Your task to perform on an android device: Open Yahoo.com Image 0: 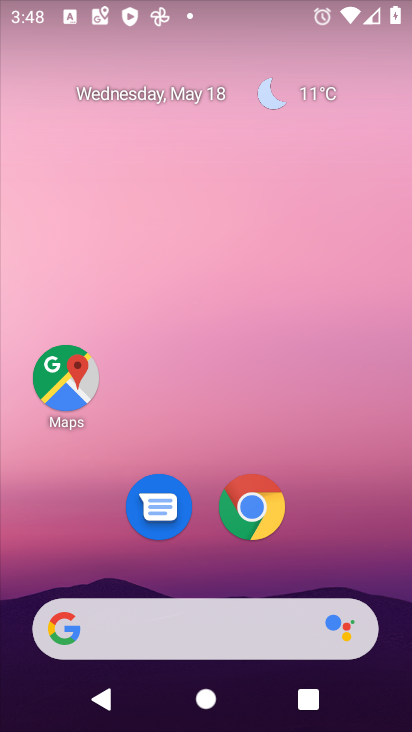
Step 0: click (252, 507)
Your task to perform on an android device: Open Yahoo.com Image 1: 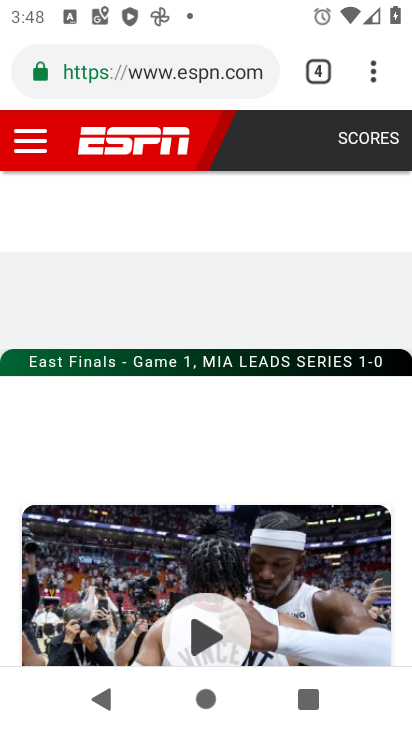
Step 1: click (148, 66)
Your task to perform on an android device: Open Yahoo.com Image 2: 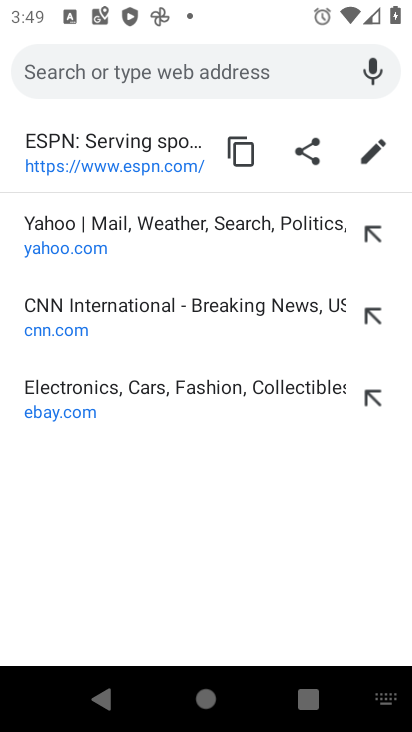
Step 2: type "yahoo.com"
Your task to perform on an android device: Open Yahoo.com Image 3: 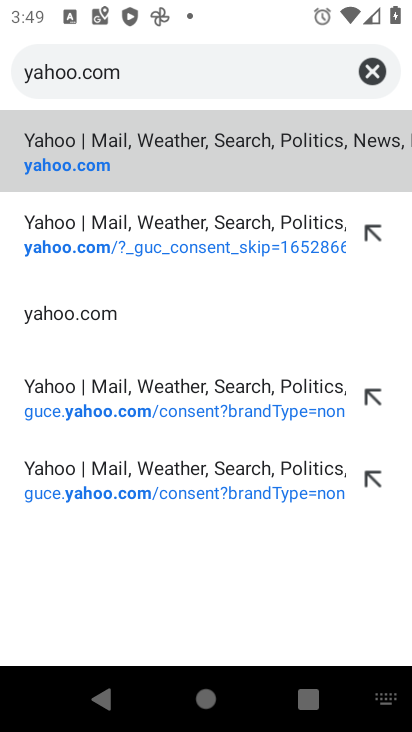
Step 3: click (77, 142)
Your task to perform on an android device: Open Yahoo.com Image 4: 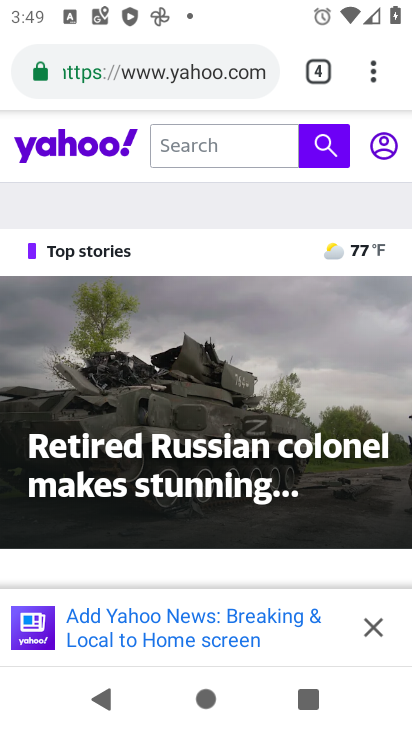
Step 4: task complete